Your task to perform on an android device: Set the phone to "Do not disturb". Image 0: 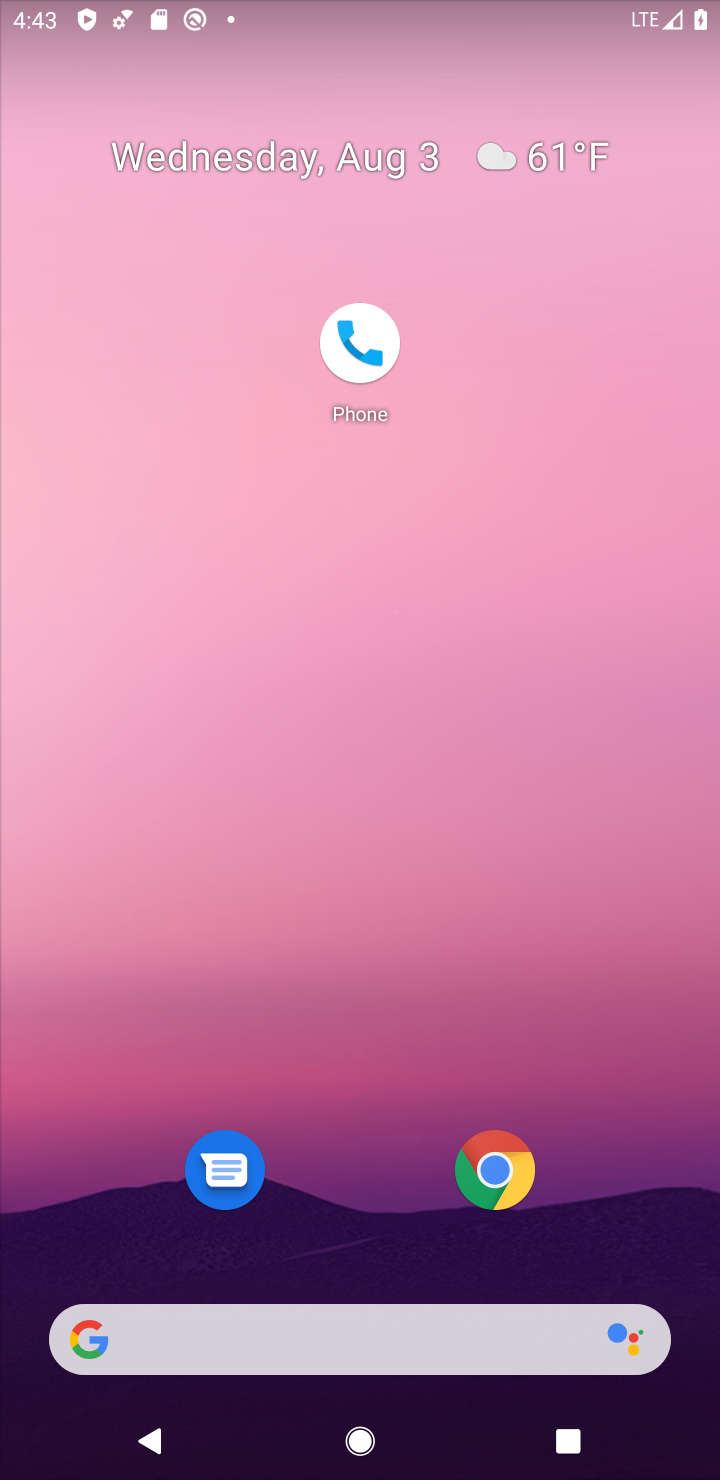
Step 0: drag from (481, 336) to (525, 171)
Your task to perform on an android device: Set the phone to "Do not disturb". Image 1: 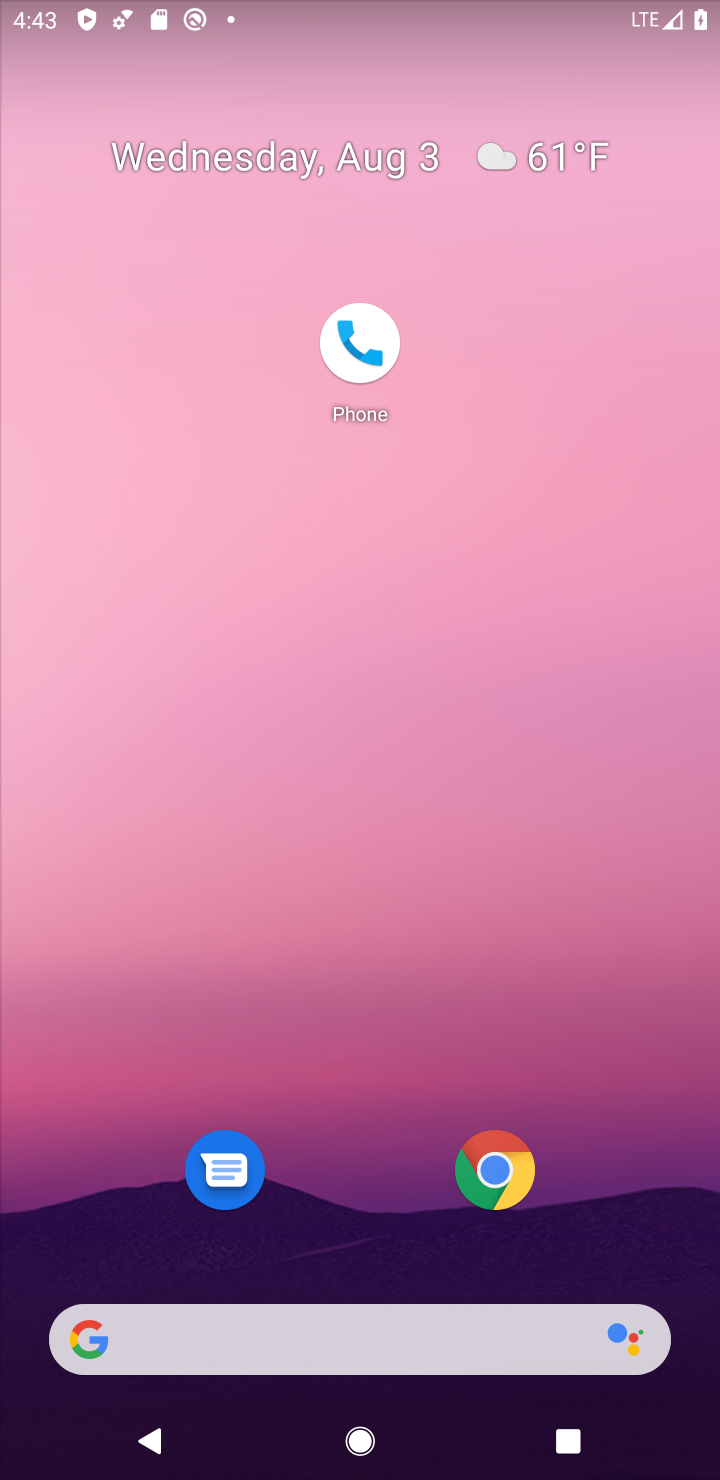
Step 1: click (404, 181)
Your task to perform on an android device: Set the phone to "Do not disturb". Image 2: 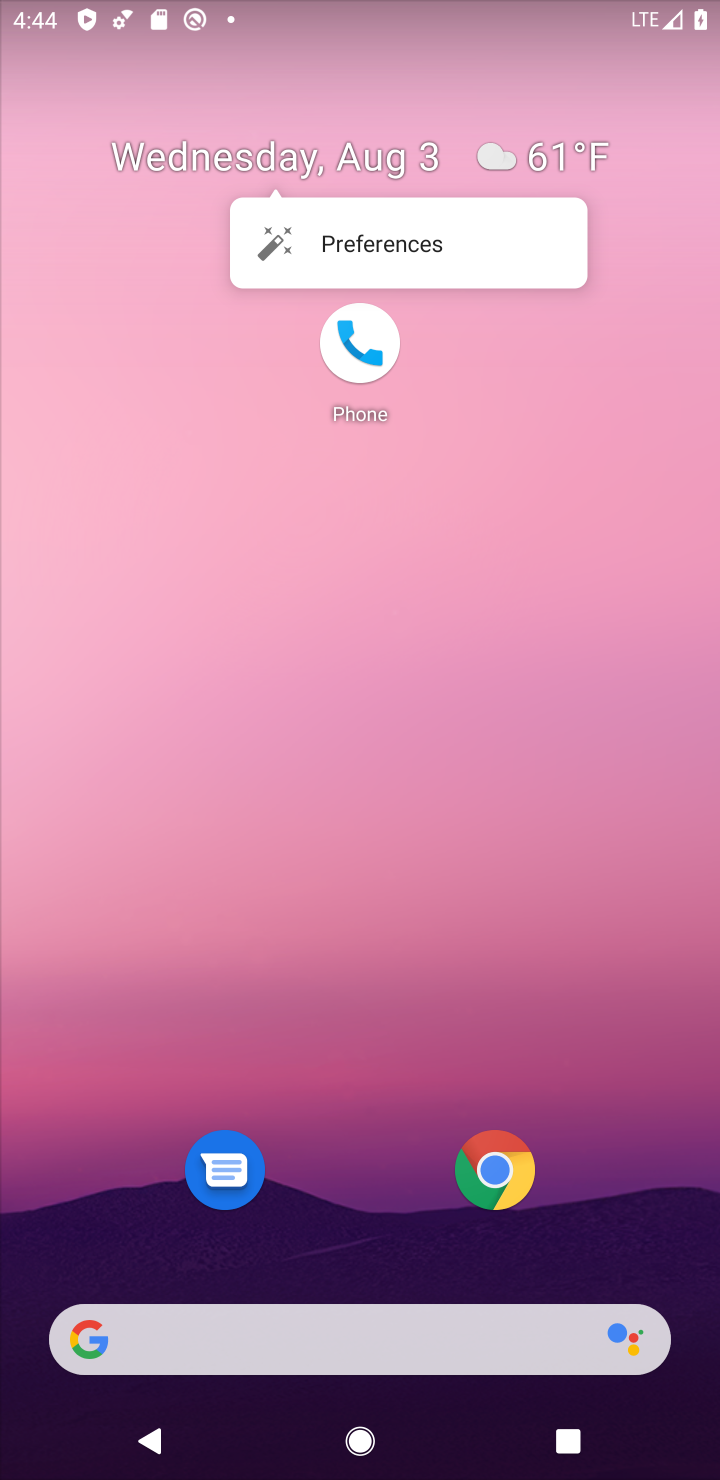
Step 2: drag from (305, 1177) to (546, 166)
Your task to perform on an android device: Set the phone to "Do not disturb". Image 3: 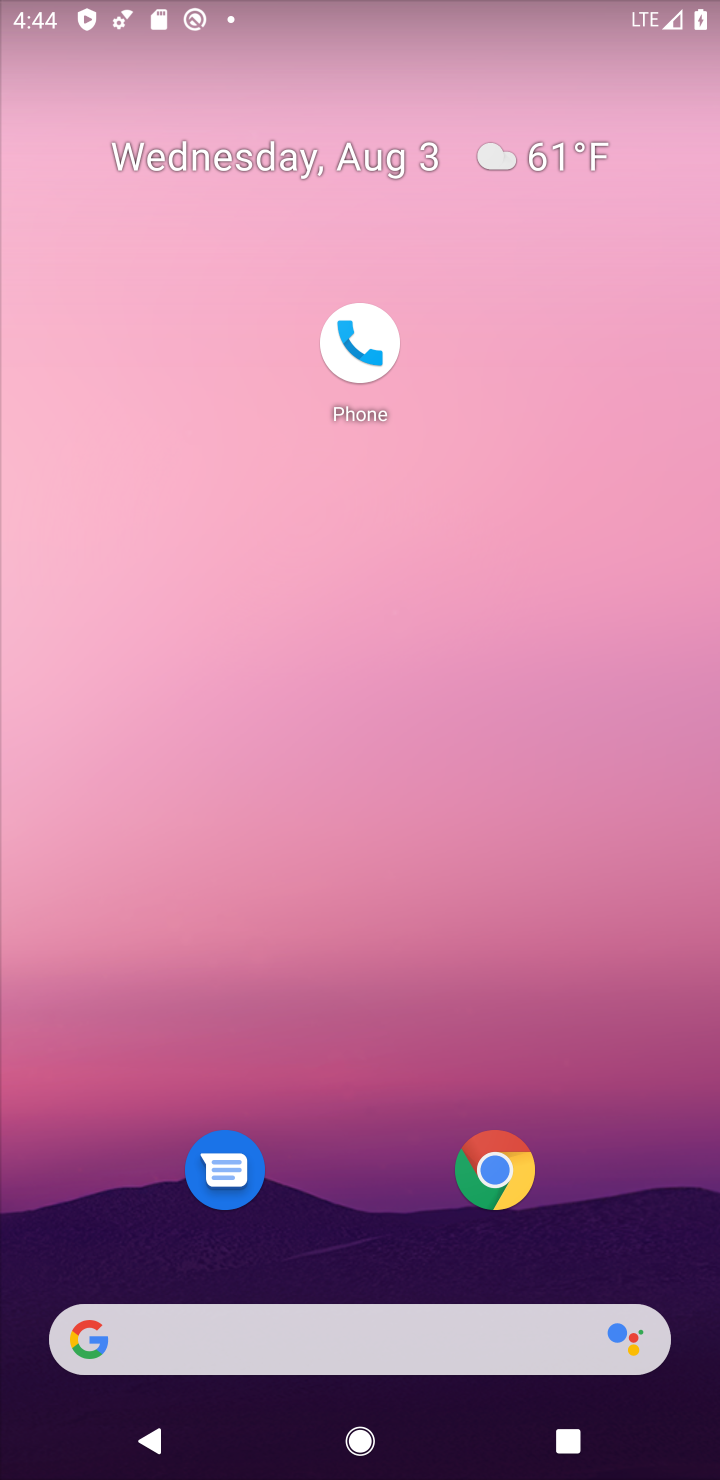
Step 3: drag from (343, 1113) to (446, 401)
Your task to perform on an android device: Set the phone to "Do not disturb". Image 4: 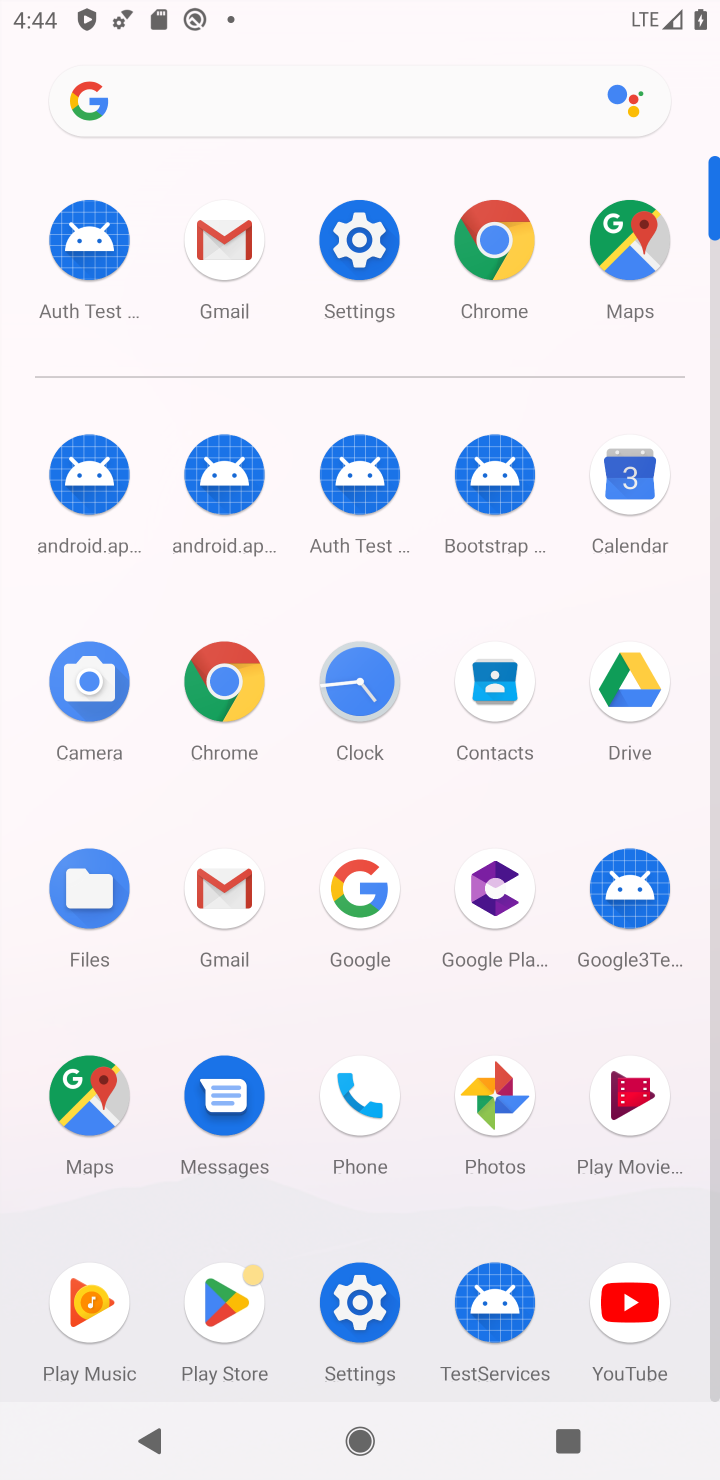
Step 4: click (364, 240)
Your task to perform on an android device: Set the phone to "Do not disturb". Image 5: 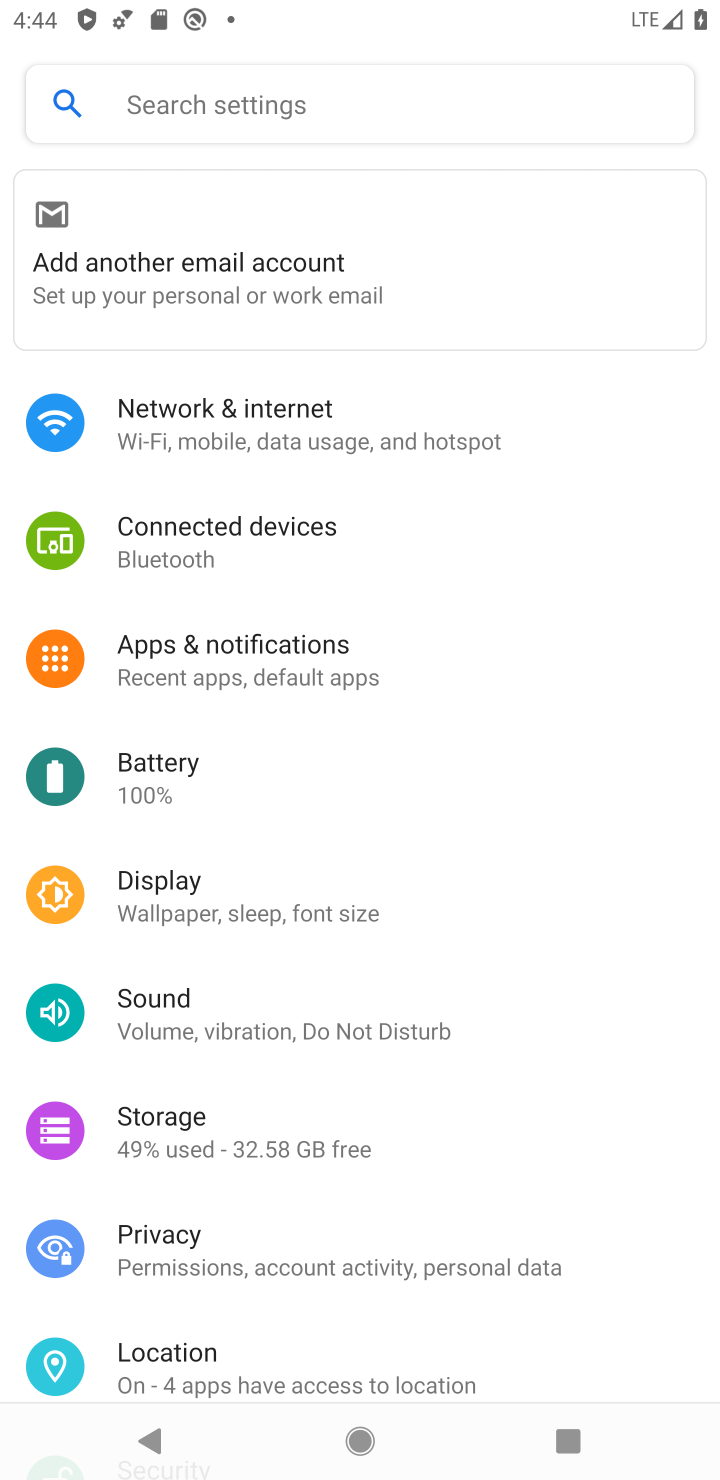
Step 5: click (183, 844)
Your task to perform on an android device: Set the phone to "Do not disturb". Image 6: 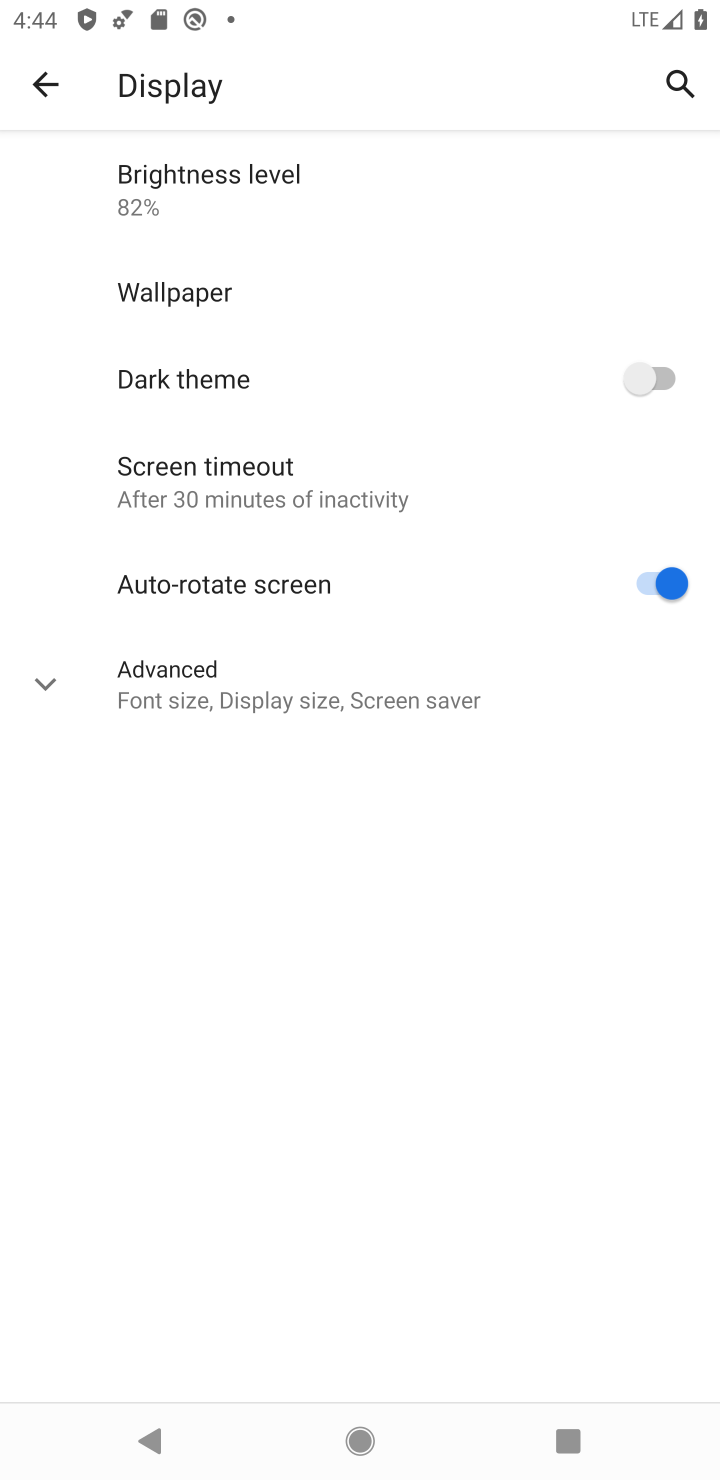
Step 6: press back button
Your task to perform on an android device: Set the phone to "Do not disturb". Image 7: 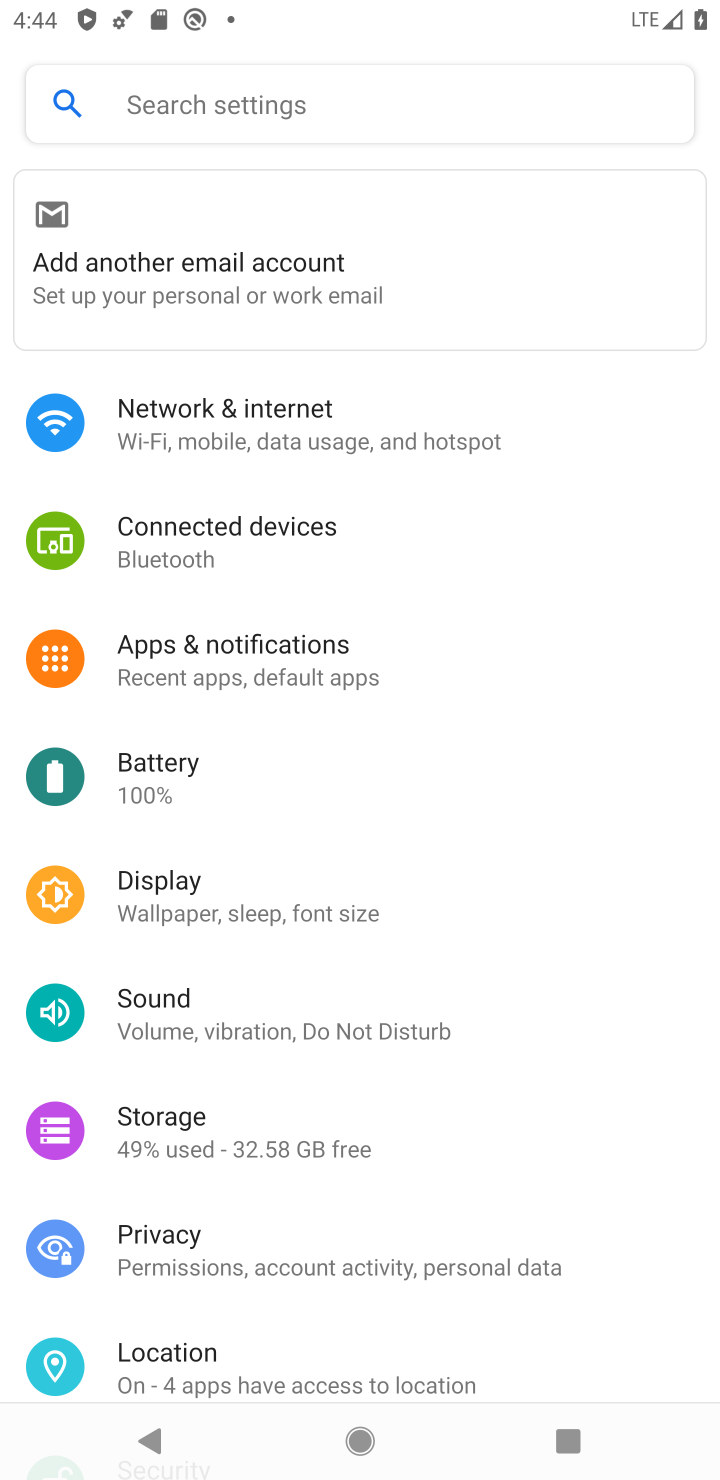
Step 7: click (146, 1018)
Your task to perform on an android device: Set the phone to "Do not disturb". Image 8: 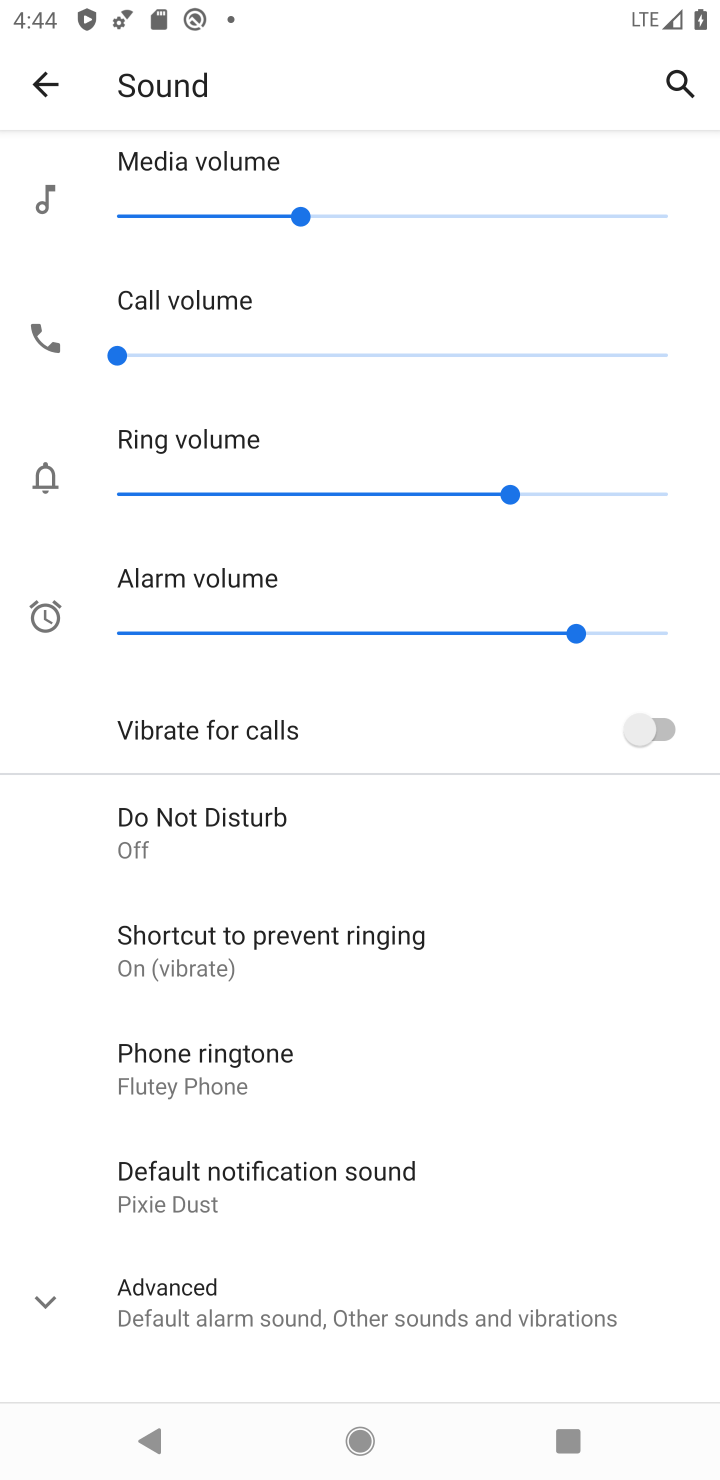
Step 8: click (144, 827)
Your task to perform on an android device: Set the phone to "Do not disturb". Image 9: 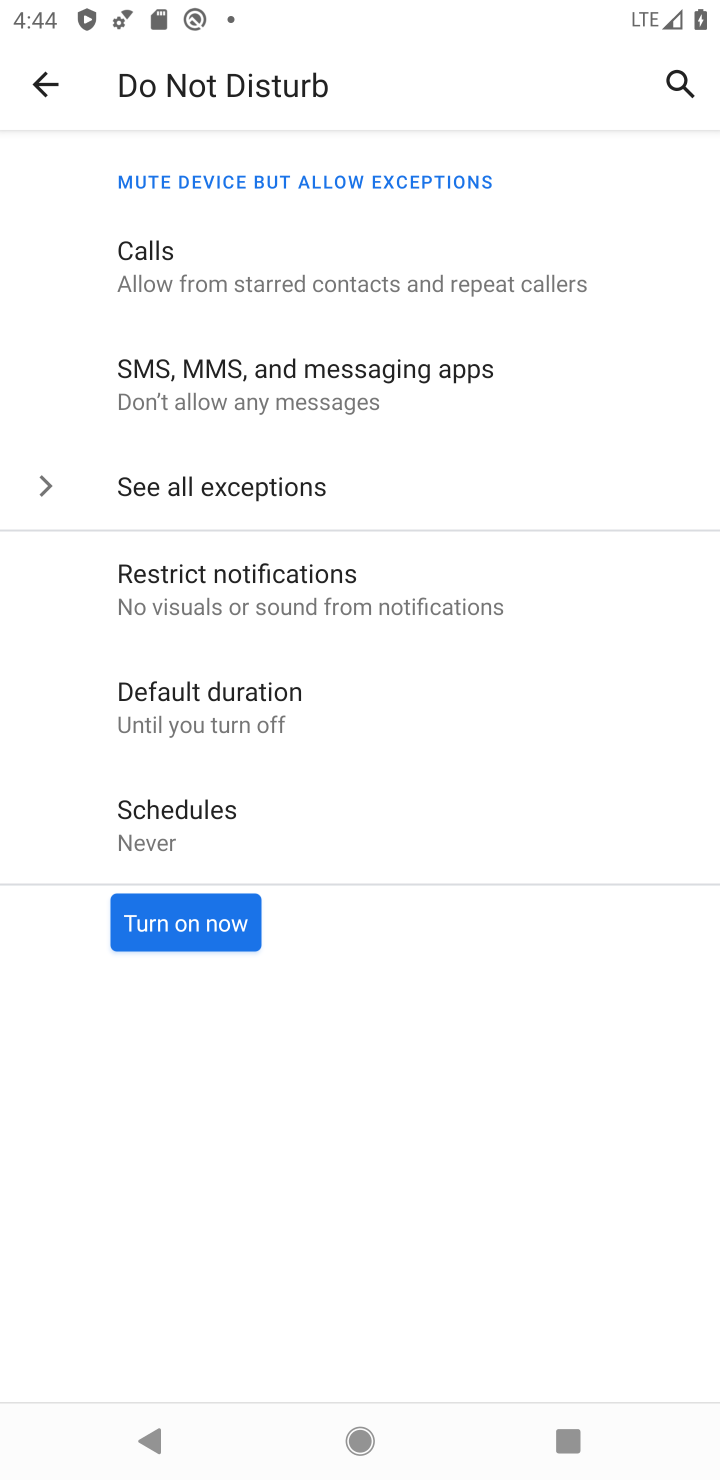
Step 9: click (173, 935)
Your task to perform on an android device: Set the phone to "Do not disturb". Image 10: 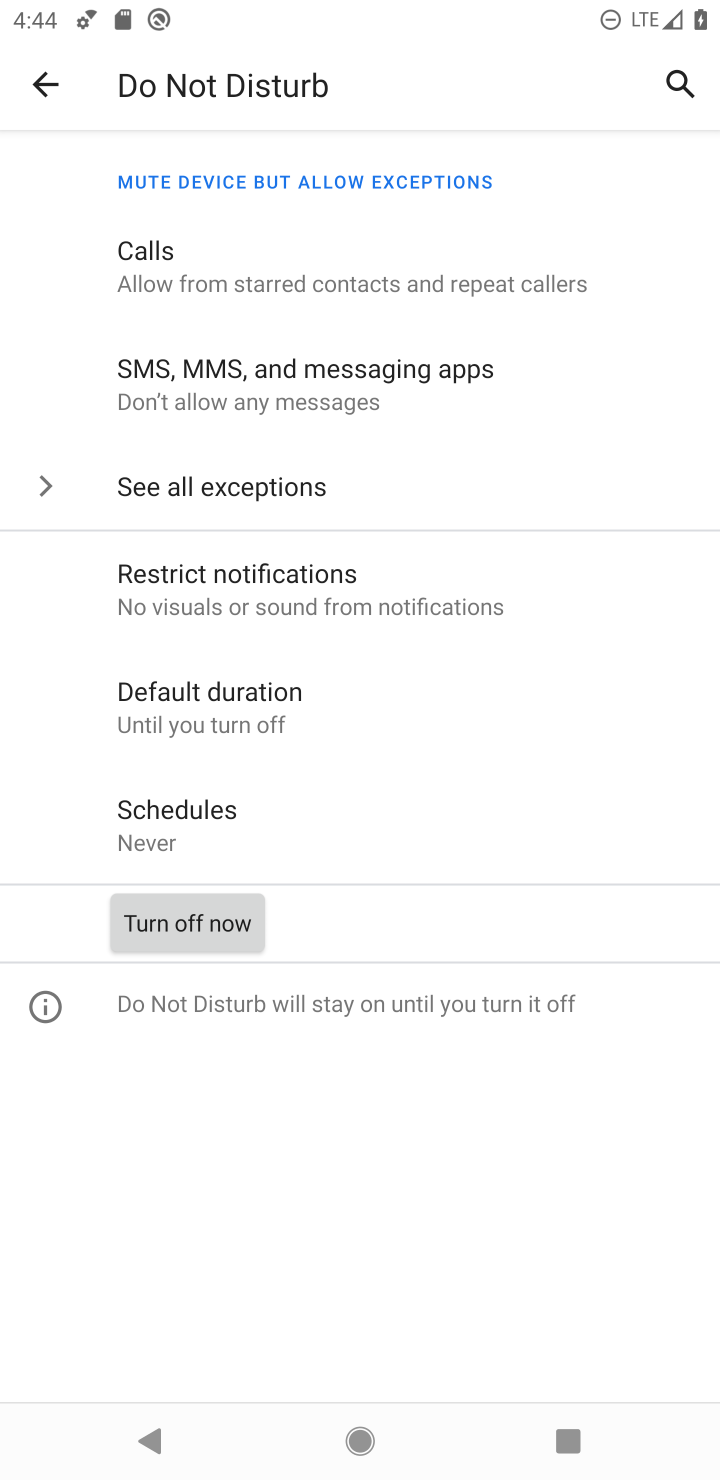
Step 10: task complete